Your task to perform on an android device: set an alarm Image 0: 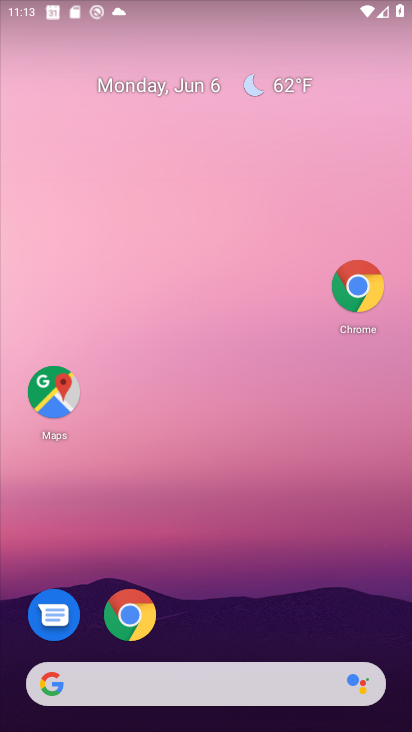
Step 0: drag from (248, 702) to (180, 182)
Your task to perform on an android device: set an alarm Image 1: 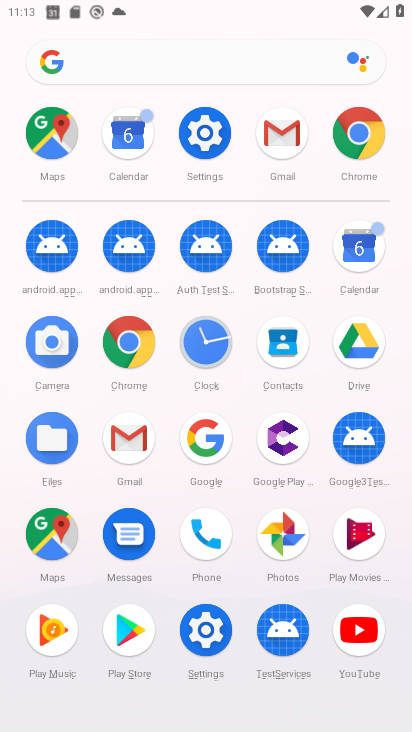
Step 1: click (208, 336)
Your task to perform on an android device: set an alarm Image 2: 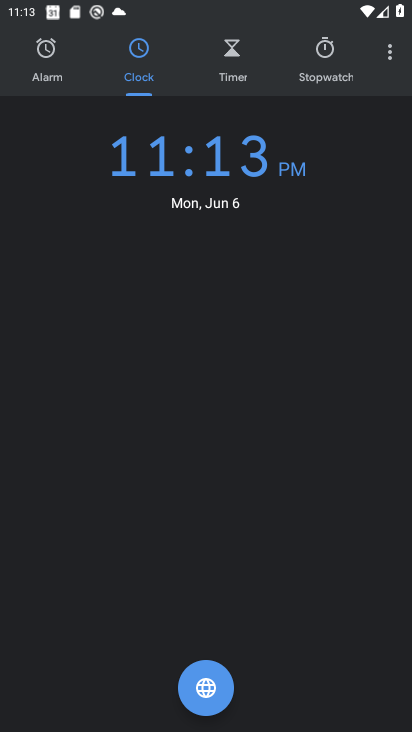
Step 2: click (48, 74)
Your task to perform on an android device: set an alarm Image 3: 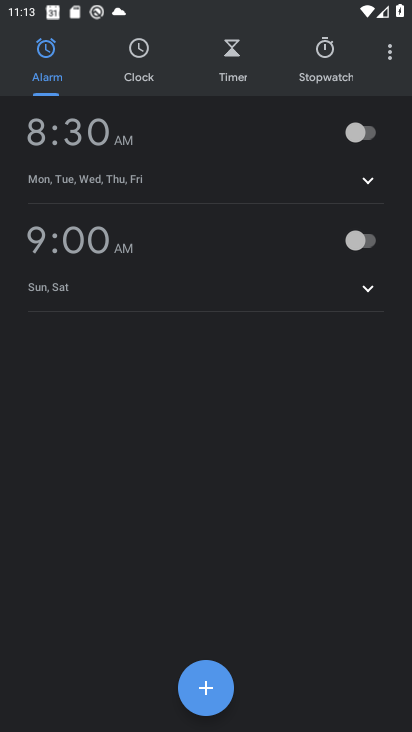
Step 3: click (361, 126)
Your task to perform on an android device: set an alarm Image 4: 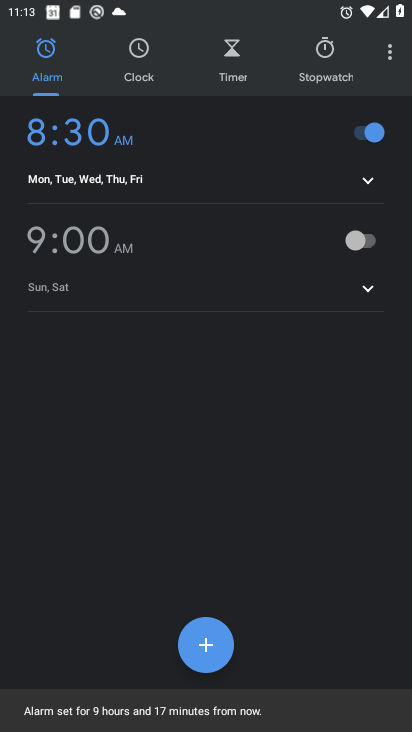
Step 4: task complete